Your task to perform on an android device: allow notifications from all sites in the chrome app Image 0: 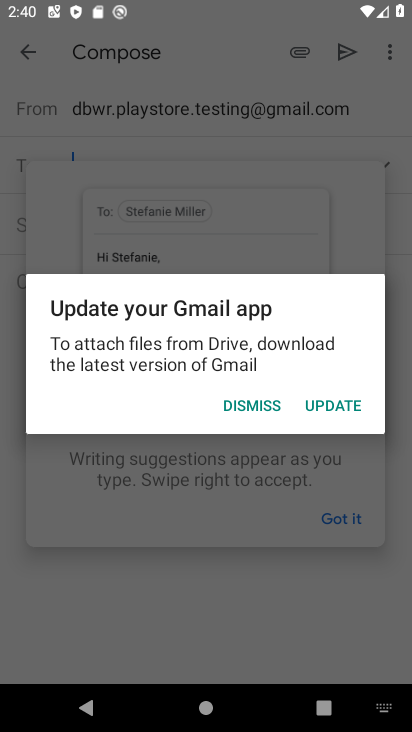
Step 0: press home button
Your task to perform on an android device: allow notifications from all sites in the chrome app Image 1: 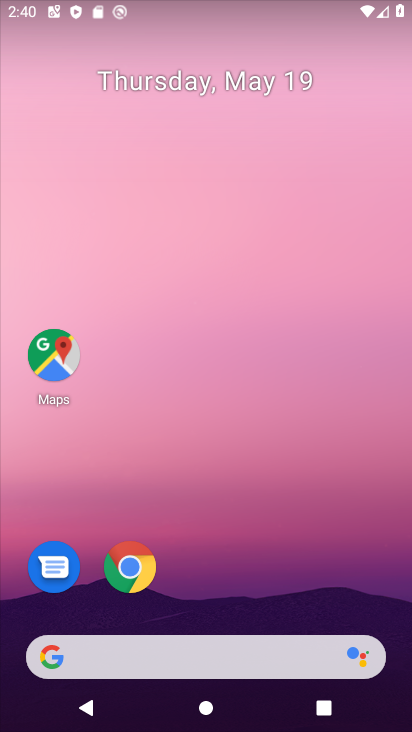
Step 1: click (125, 565)
Your task to perform on an android device: allow notifications from all sites in the chrome app Image 2: 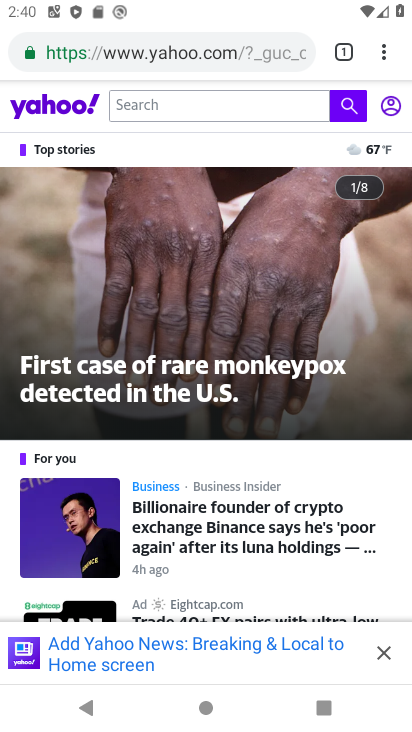
Step 2: click (385, 59)
Your task to perform on an android device: allow notifications from all sites in the chrome app Image 3: 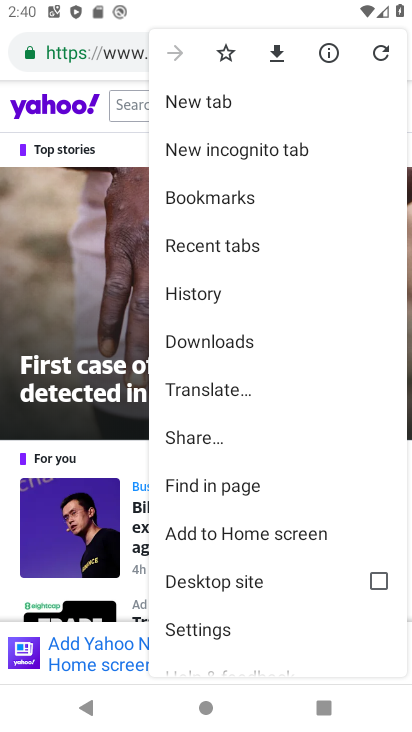
Step 3: click (186, 624)
Your task to perform on an android device: allow notifications from all sites in the chrome app Image 4: 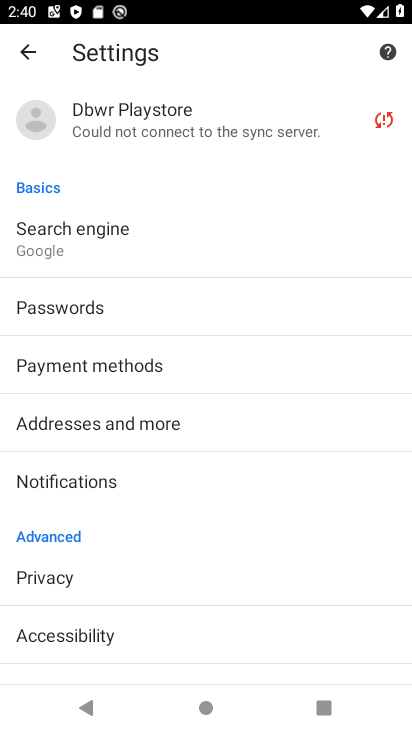
Step 4: drag from (68, 625) to (109, 353)
Your task to perform on an android device: allow notifications from all sites in the chrome app Image 5: 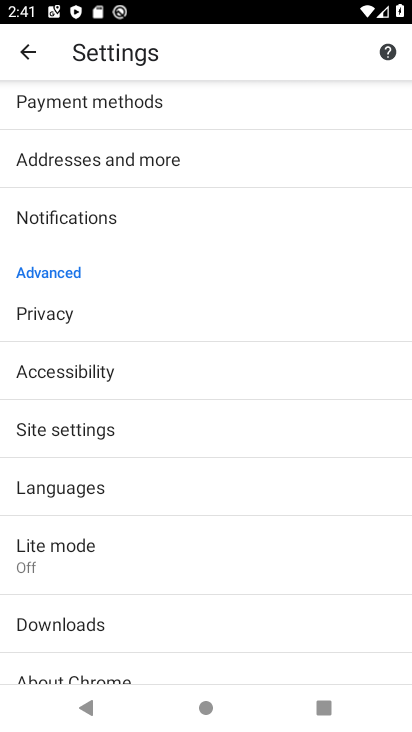
Step 5: click (70, 432)
Your task to perform on an android device: allow notifications from all sites in the chrome app Image 6: 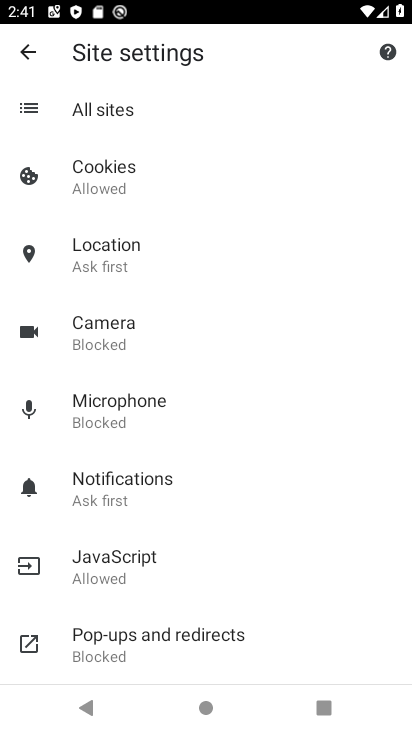
Step 6: click (108, 480)
Your task to perform on an android device: allow notifications from all sites in the chrome app Image 7: 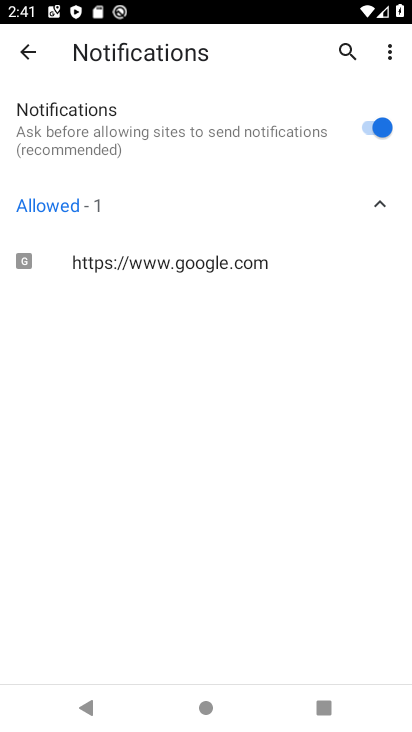
Step 7: task complete